Your task to perform on an android device: Open Yahoo.com Image 0: 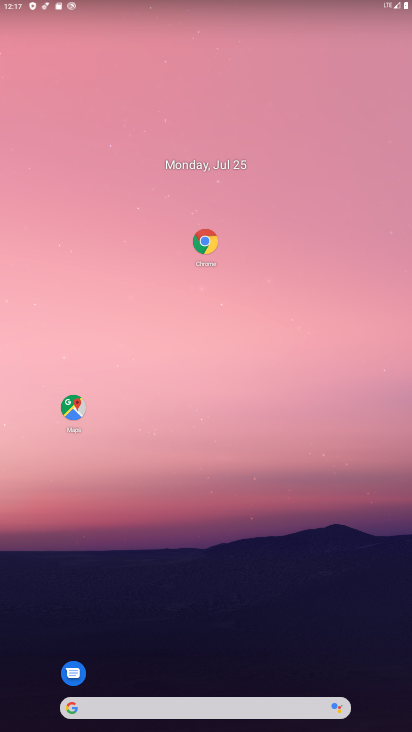
Step 0: drag from (295, 682) to (220, 45)
Your task to perform on an android device: Open Yahoo.com Image 1: 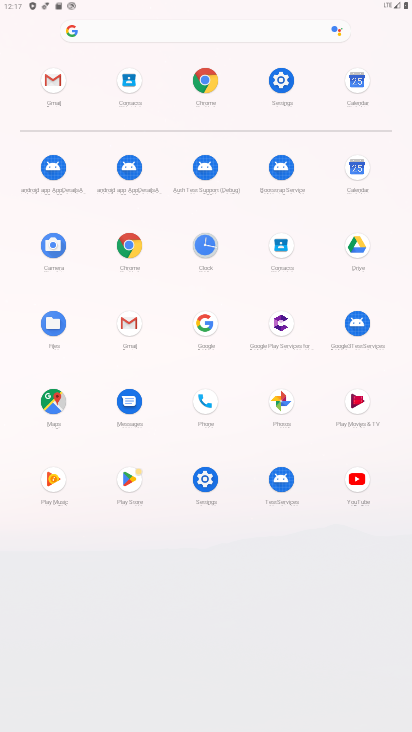
Step 1: click (126, 239)
Your task to perform on an android device: Open Yahoo.com Image 2: 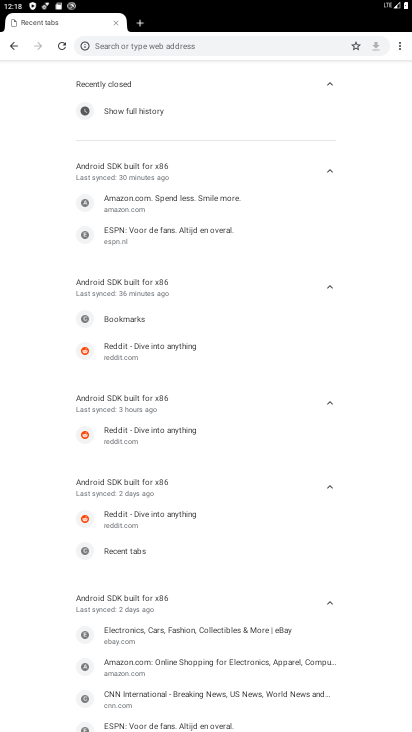
Step 2: click (151, 46)
Your task to perform on an android device: Open Yahoo.com Image 3: 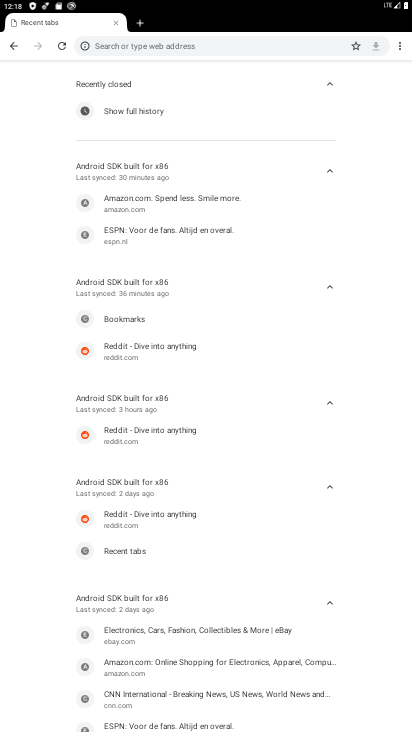
Step 3: click (151, 46)
Your task to perform on an android device: Open Yahoo.com Image 4: 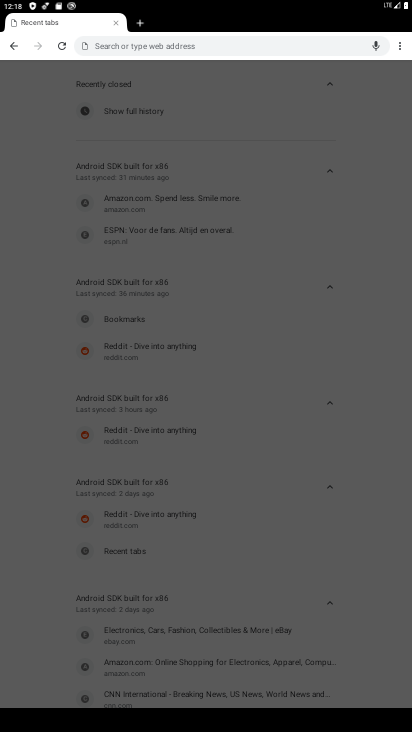
Step 4: type "yahoo.com"
Your task to perform on an android device: Open Yahoo.com Image 5: 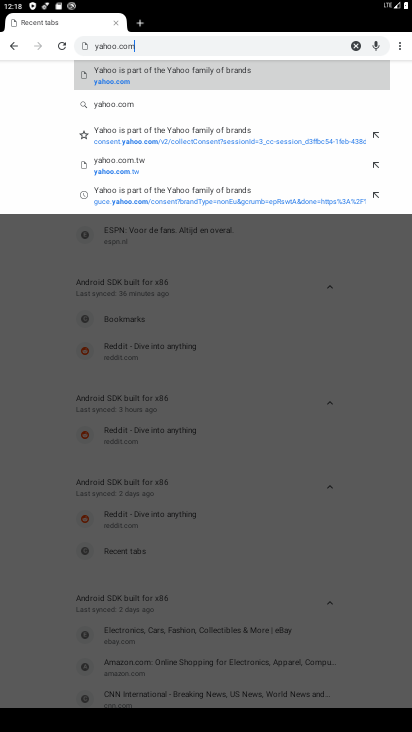
Step 5: click (105, 72)
Your task to perform on an android device: Open Yahoo.com Image 6: 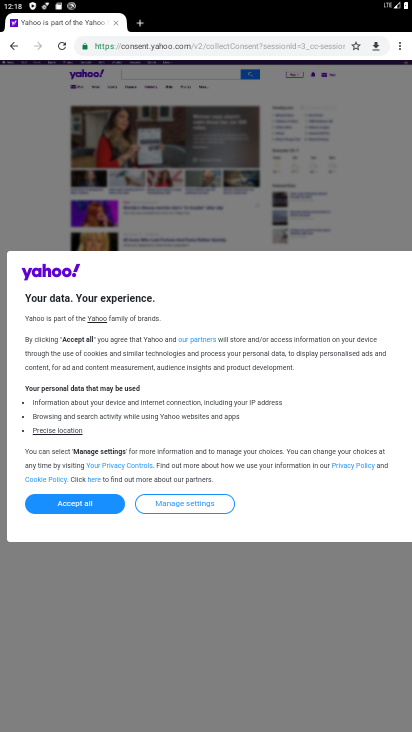
Step 6: task complete